Your task to perform on an android device: Open ESPN.com Image 0: 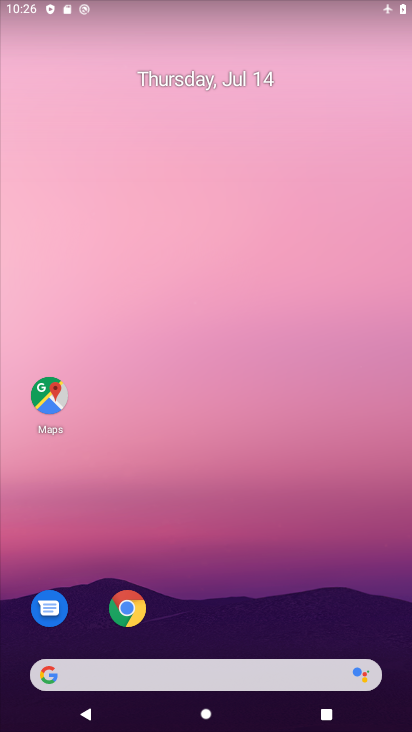
Step 0: click (131, 622)
Your task to perform on an android device: Open ESPN.com Image 1: 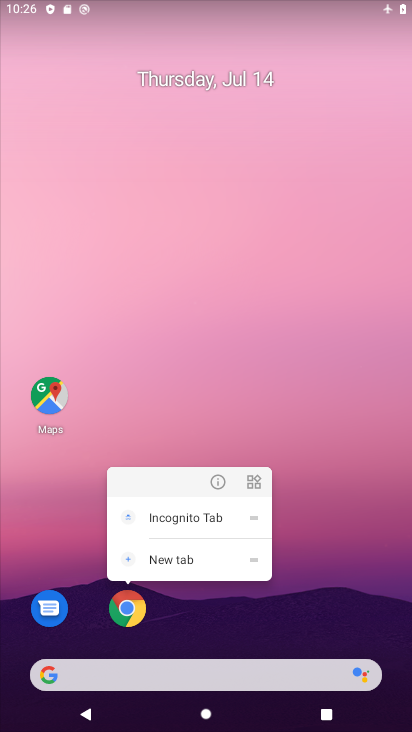
Step 1: click (132, 628)
Your task to perform on an android device: Open ESPN.com Image 2: 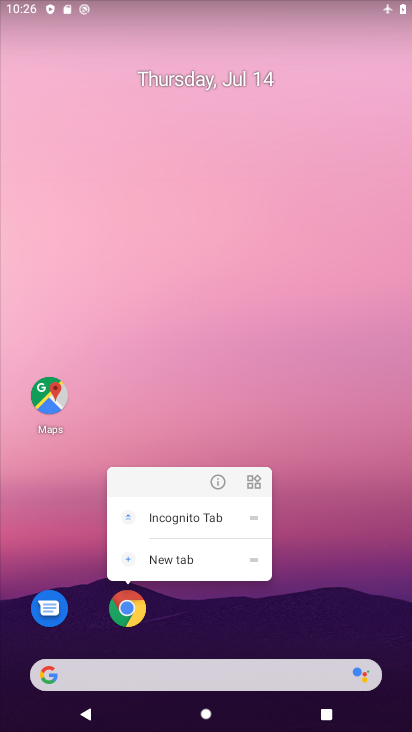
Step 2: click (130, 602)
Your task to perform on an android device: Open ESPN.com Image 3: 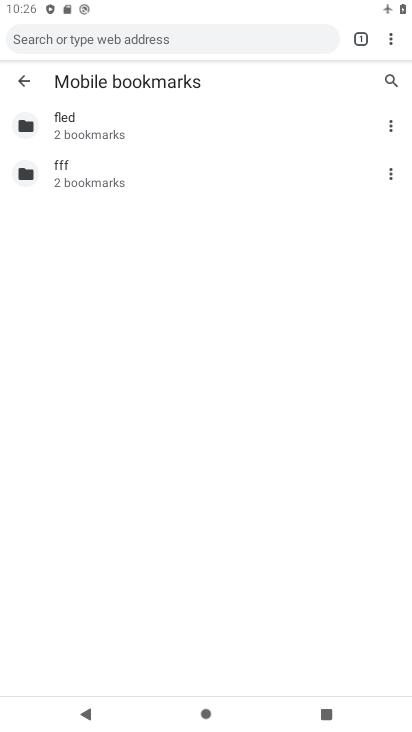
Step 3: click (180, 48)
Your task to perform on an android device: Open ESPN.com Image 4: 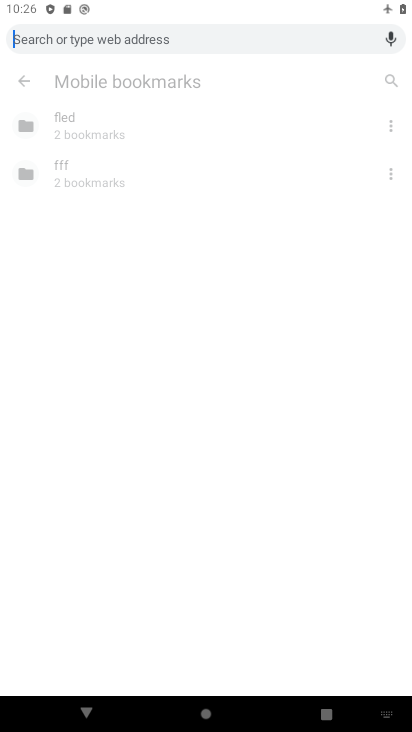
Step 4: type "ESPN.com"
Your task to perform on an android device: Open ESPN.com Image 5: 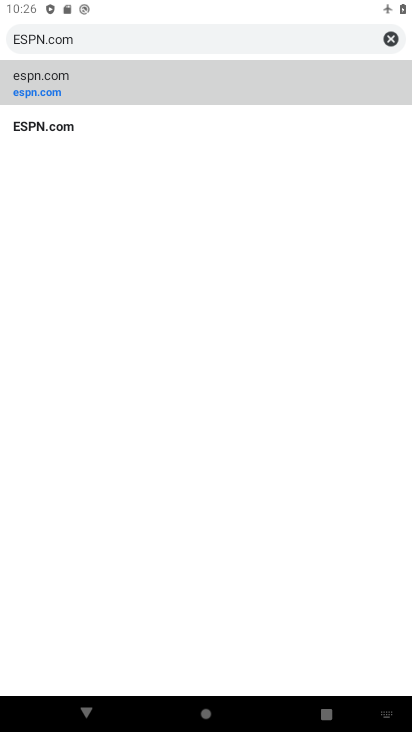
Step 5: click (88, 77)
Your task to perform on an android device: Open ESPN.com Image 6: 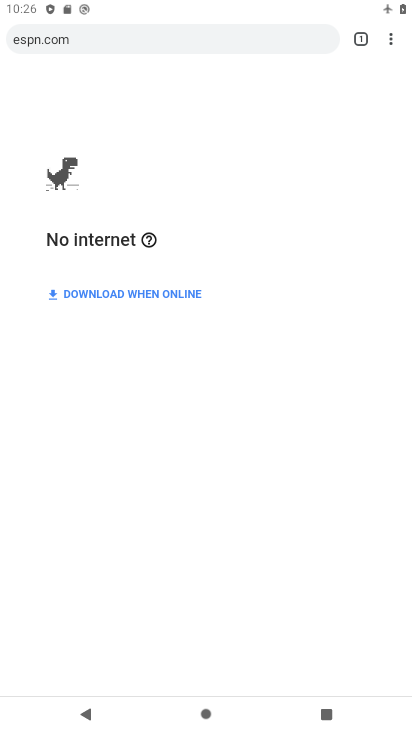
Step 6: task complete